Your task to perform on an android device: Open notification settings Image 0: 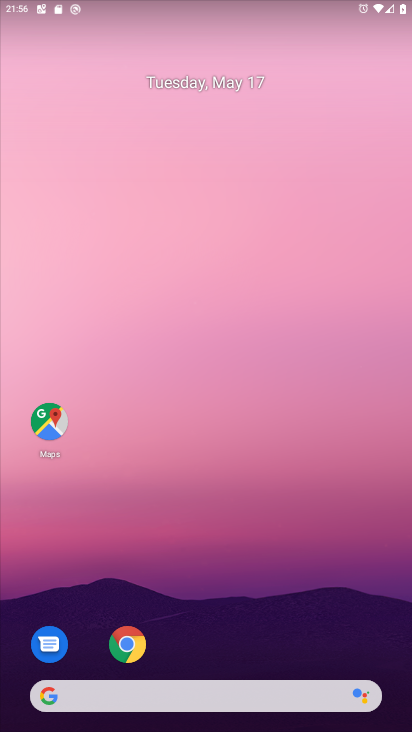
Step 0: drag from (234, 620) to (256, 363)
Your task to perform on an android device: Open notification settings Image 1: 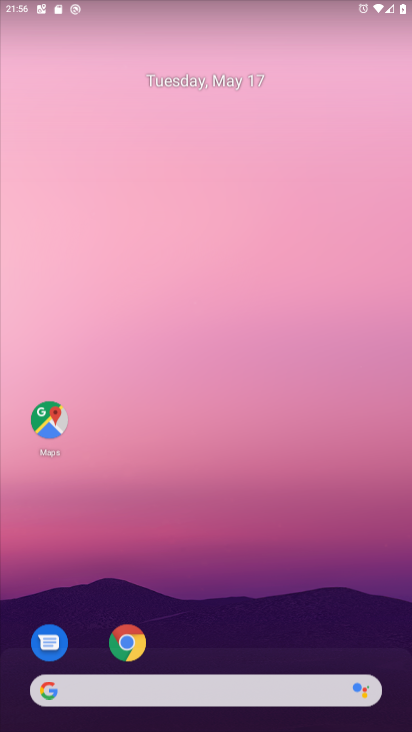
Step 1: click (269, 160)
Your task to perform on an android device: Open notification settings Image 2: 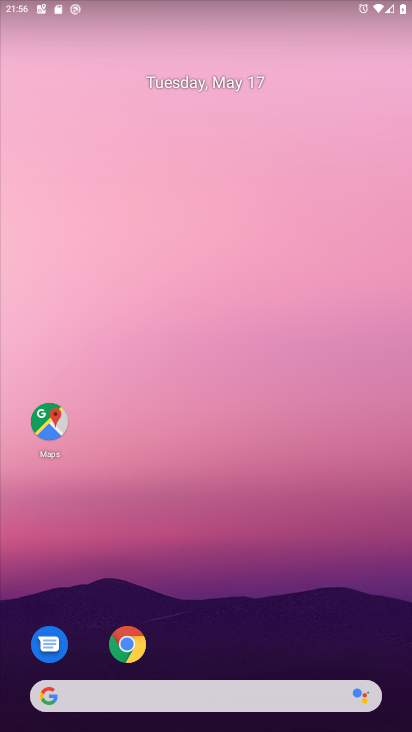
Step 2: drag from (208, 655) to (276, 55)
Your task to perform on an android device: Open notification settings Image 3: 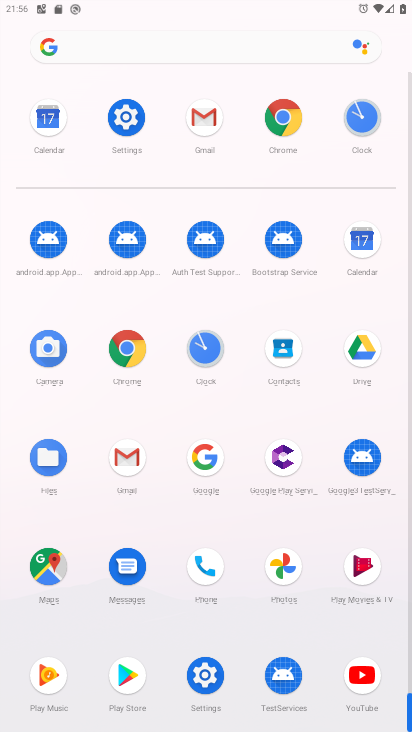
Step 3: click (132, 112)
Your task to perform on an android device: Open notification settings Image 4: 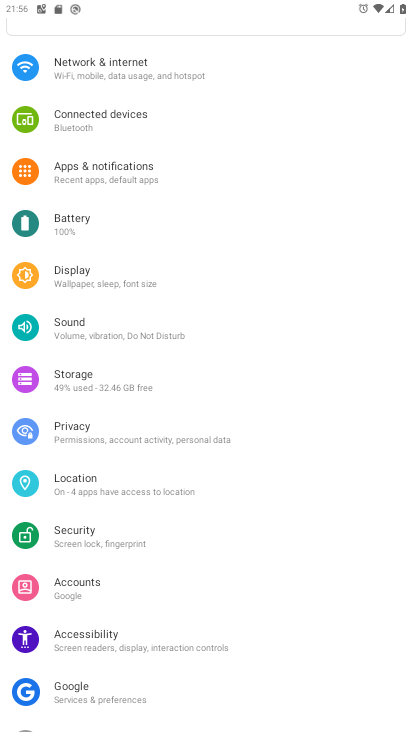
Step 4: click (166, 170)
Your task to perform on an android device: Open notification settings Image 5: 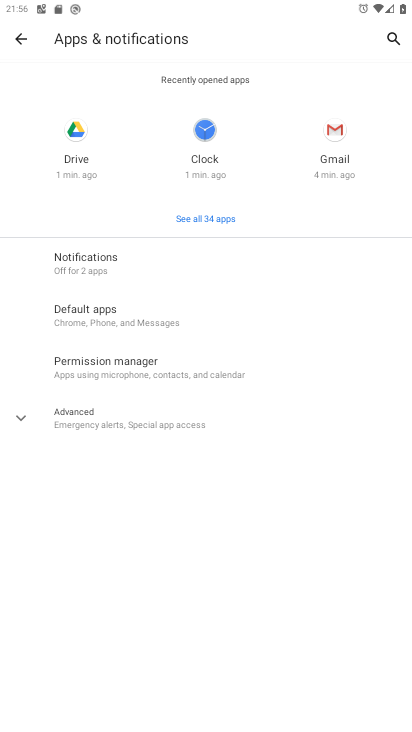
Step 5: click (128, 257)
Your task to perform on an android device: Open notification settings Image 6: 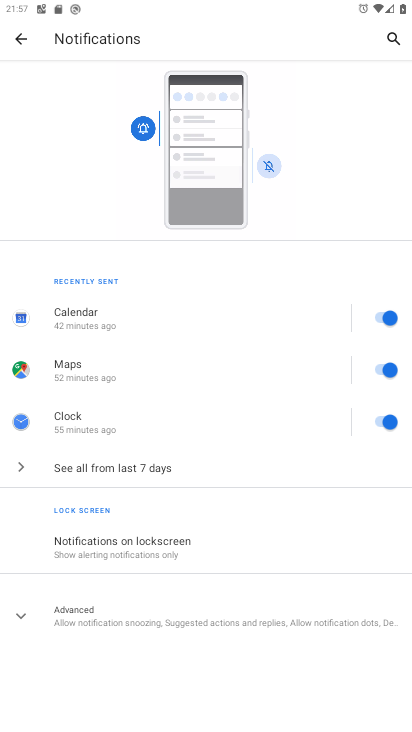
Step 6: drag from (210, 564) to (224, 312)
Your task to perform on an android device: Open notification settings Image 7: 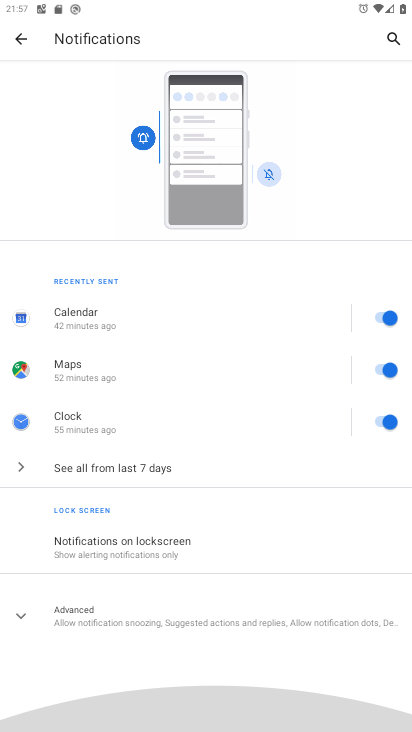
Step 7: click (224, 215)
Your task to perform on an android device: Open notification settings Image 8: 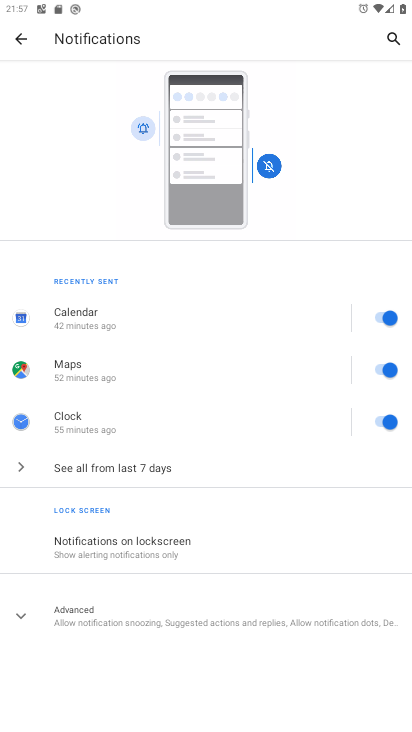
Step 8: click (21, 614)
Your task to perform on an android device: Open notification settings Image 9: 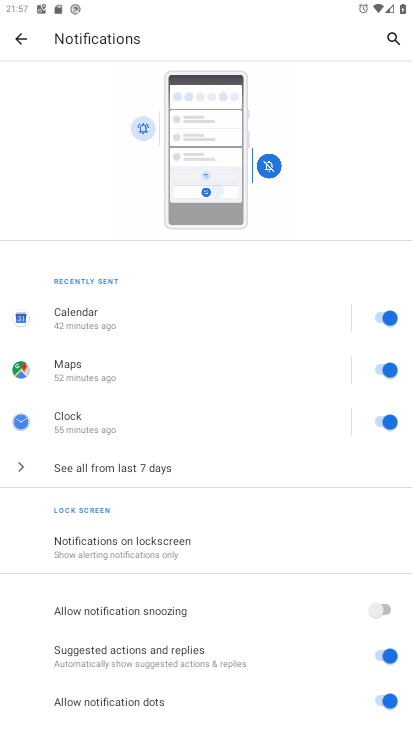
Step 9: drag from (209, 698) to (226, 533)
Your task to perform on an android device: Open notification settings Image 10: 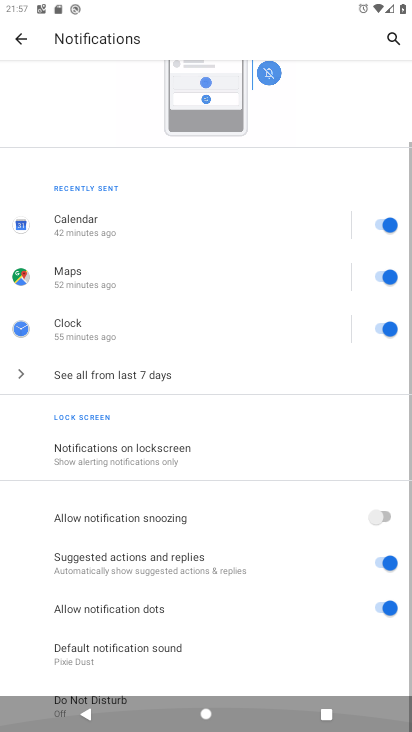
Step 10: drag from (238, 285) to (238, 234)
Your task to perform on an android device: Open notification settings Image 11: 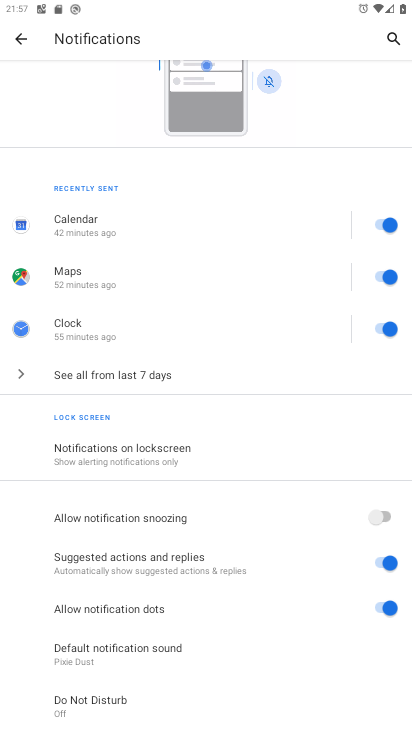
Step 11: click (222, 676)
Your task to perform on an android device: Open notification settings Image 12: 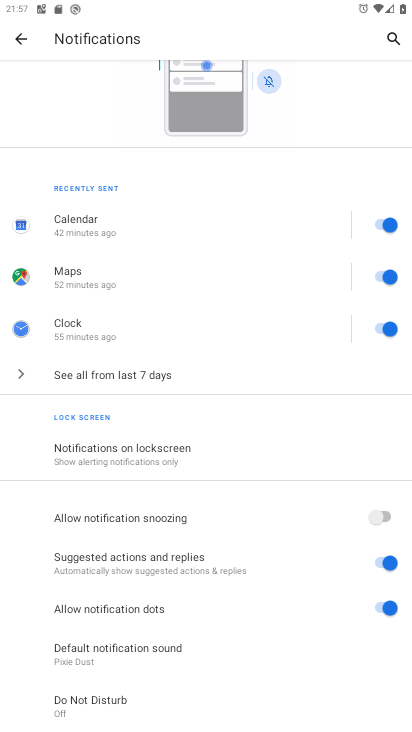
Step 12: task complete